Your task to perform on an android device: Add lenovo thinkpad to the cart on target Image 0: 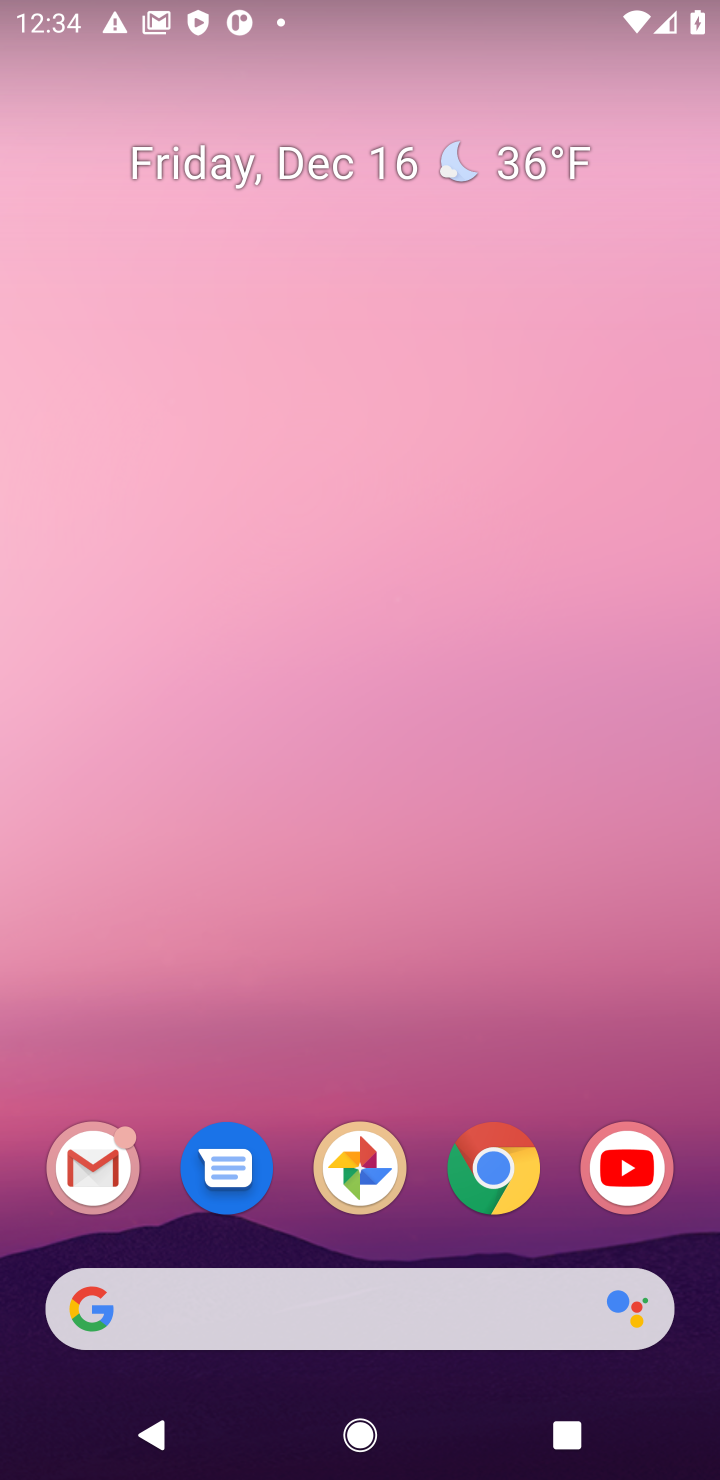
Step 0: click (490, 1177)
Your task to perform on an android device: Add lenovo thinkpad to the cart on target Image 1: 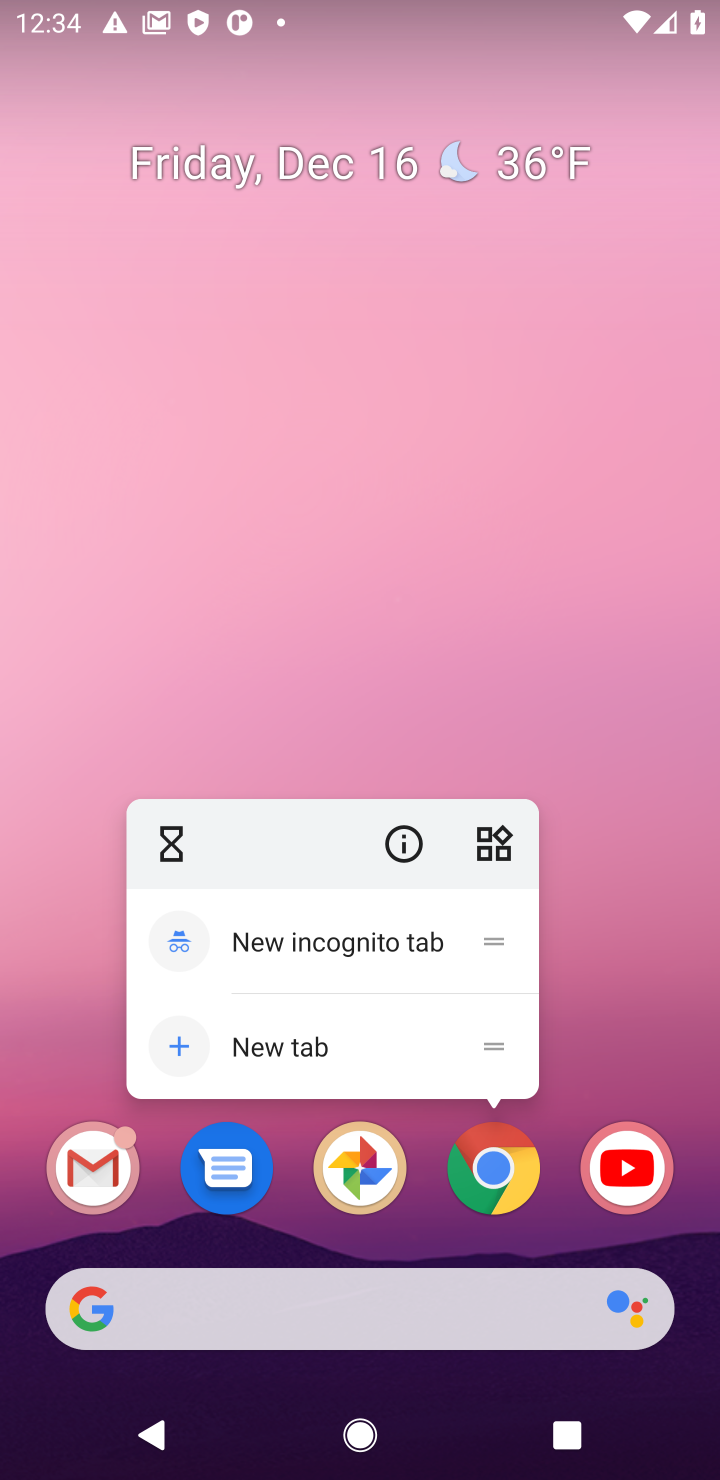
Step 1: click (467, 1194)
Your task to perform on an android device: Add lenovo thinkpad to the cart on target Image 2: 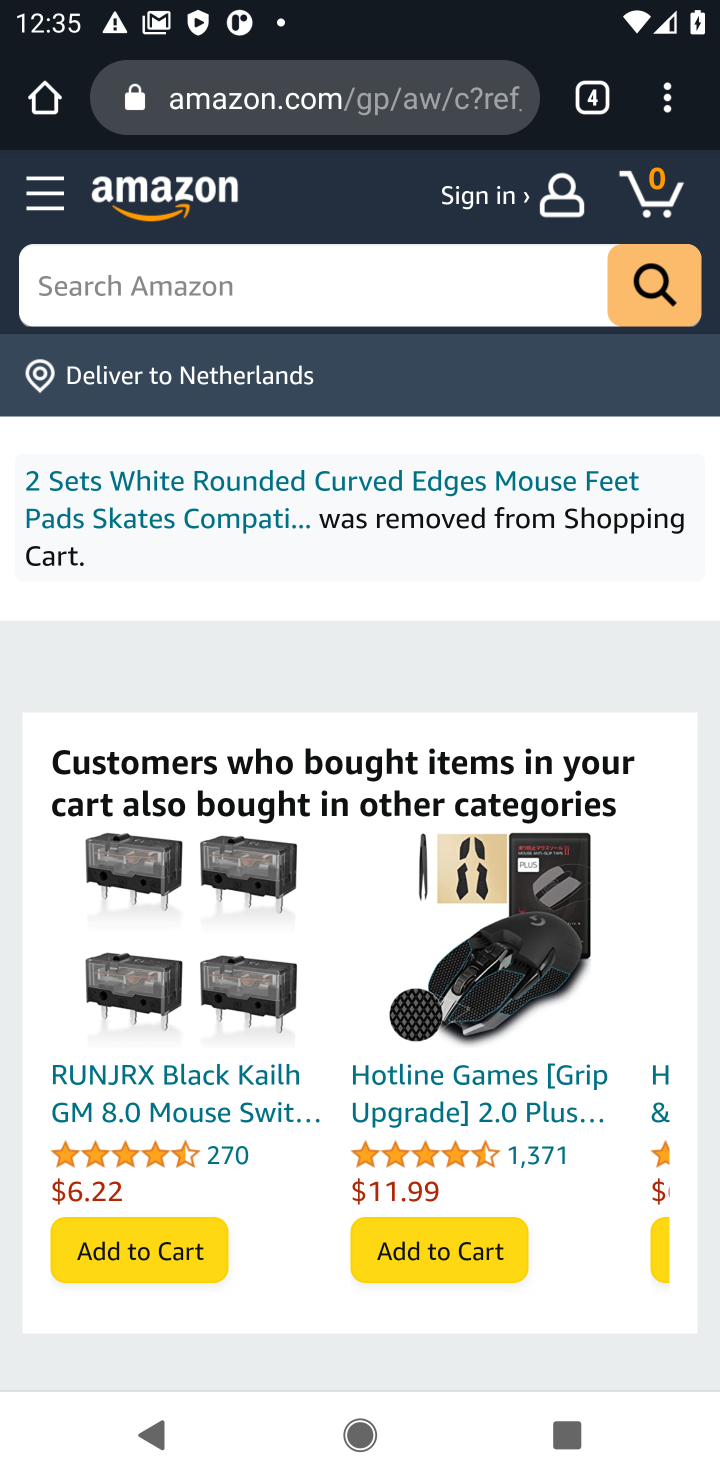
Step 2: click (327, 107)
Your task to perform on an android device: Add lenovo thinkpad to the cart on target Image 3: 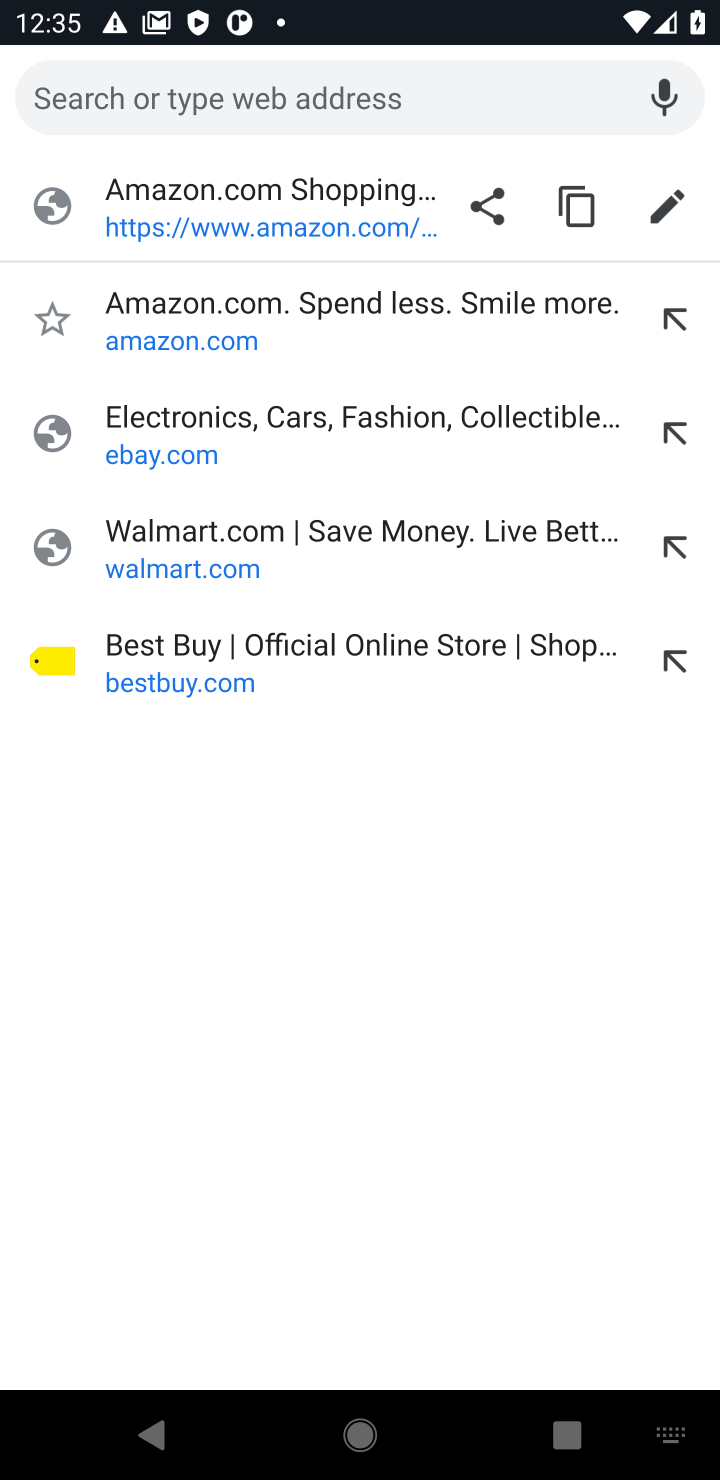
Step 3: type "target"
Your task to perform on an android device: Add lenovo thinkpad to the cart on target Image 4: 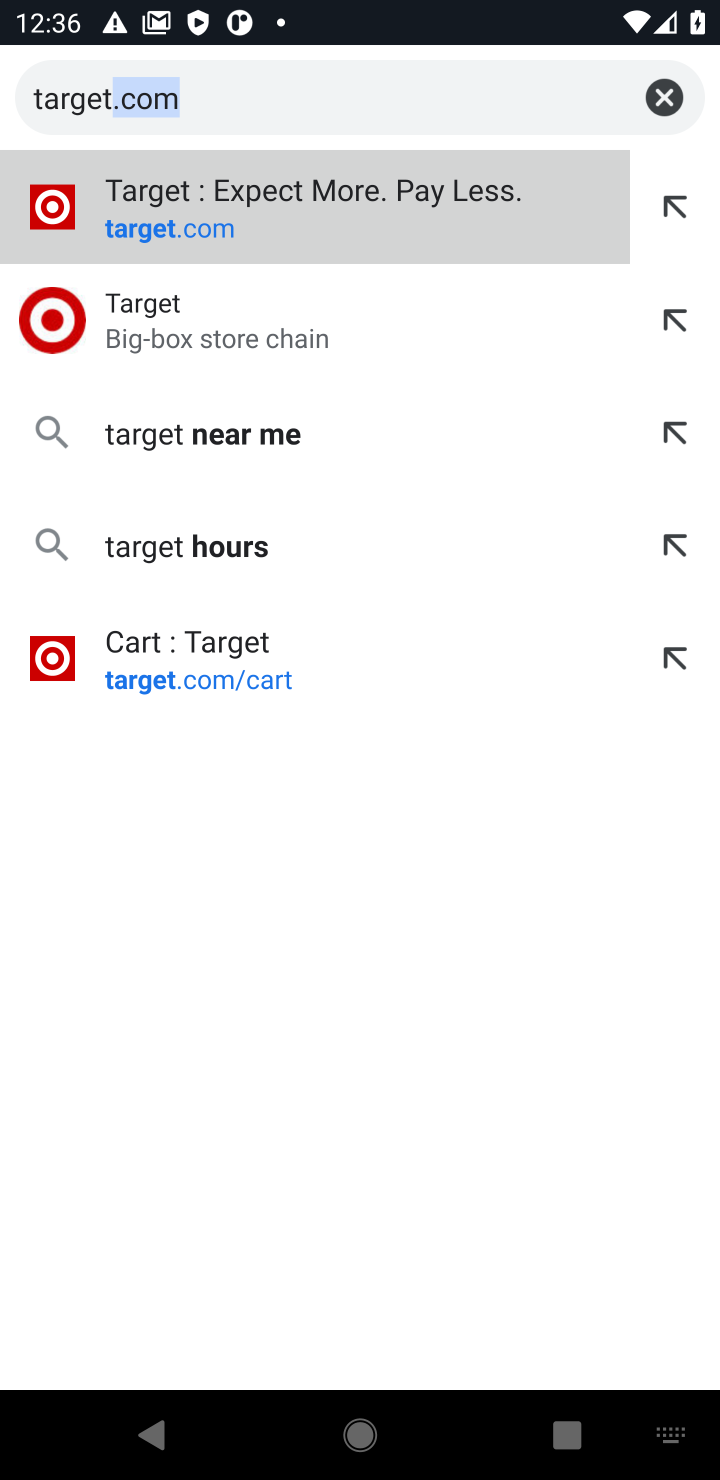
Step 4: click (158, 214)
Your task to perform on an android device: Add lenovo thinkpad to the cart on target Image 5: 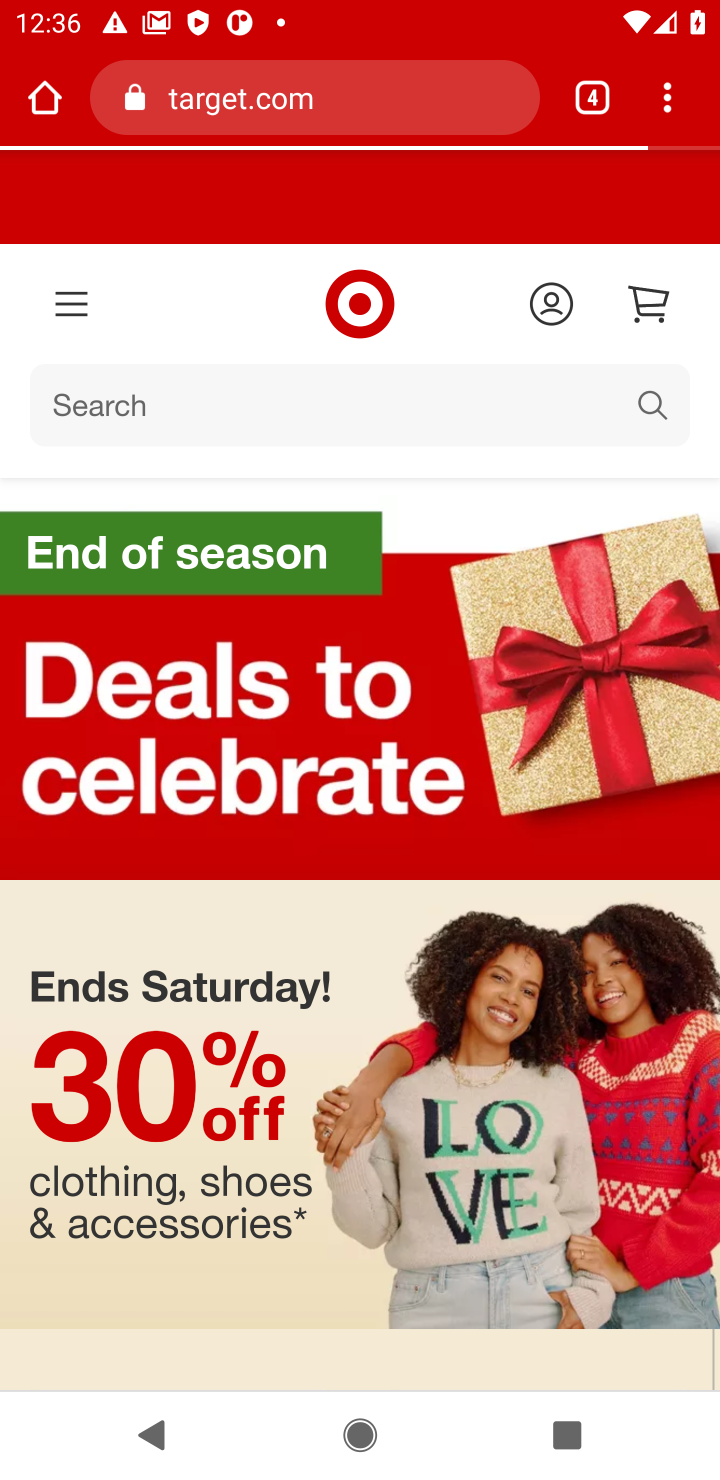
Step 5: click (644, 400)
Your task to perform on an android device: Add lenovo thinkpad to the cart on target Image 6: 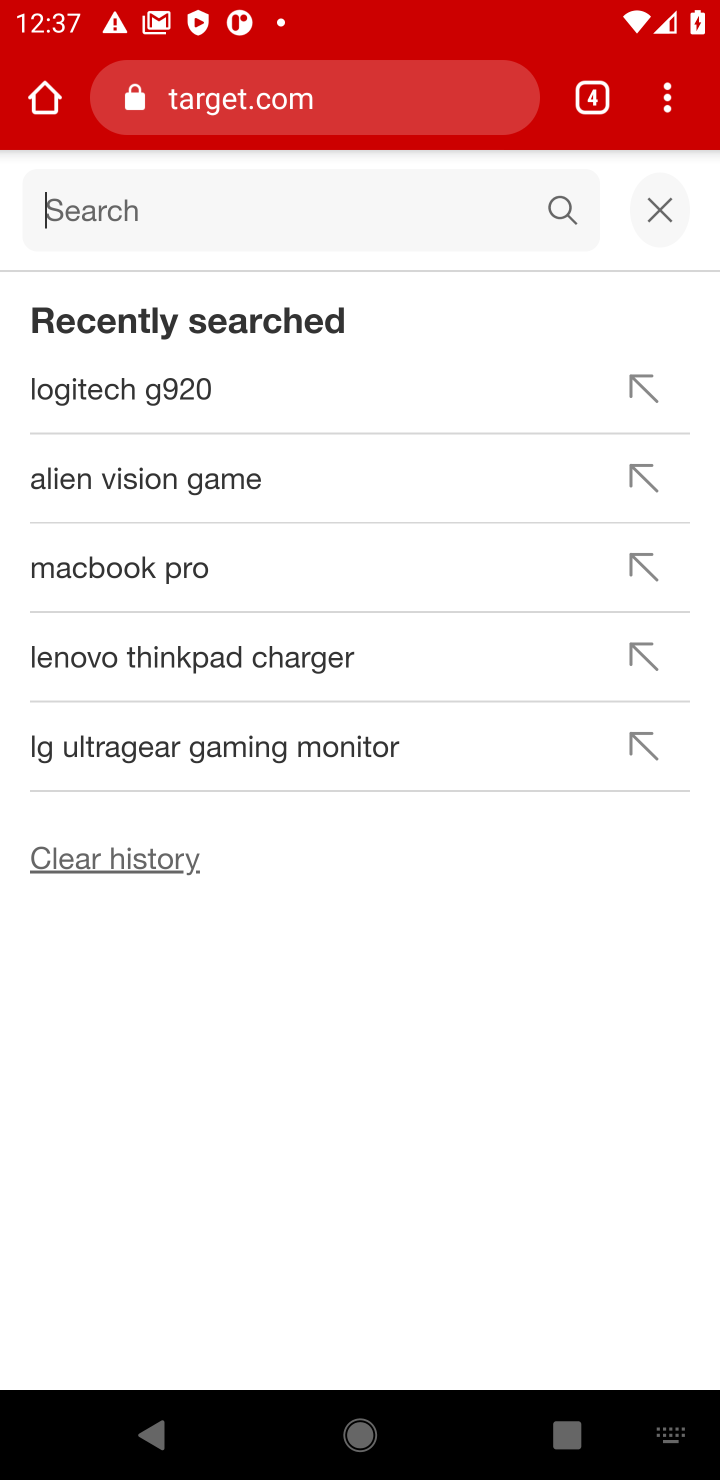
Step 6: type "lenovo thinkpad"
Your task to perform on an android device: Add lenovo thinkpad to the cart on target Image 7: 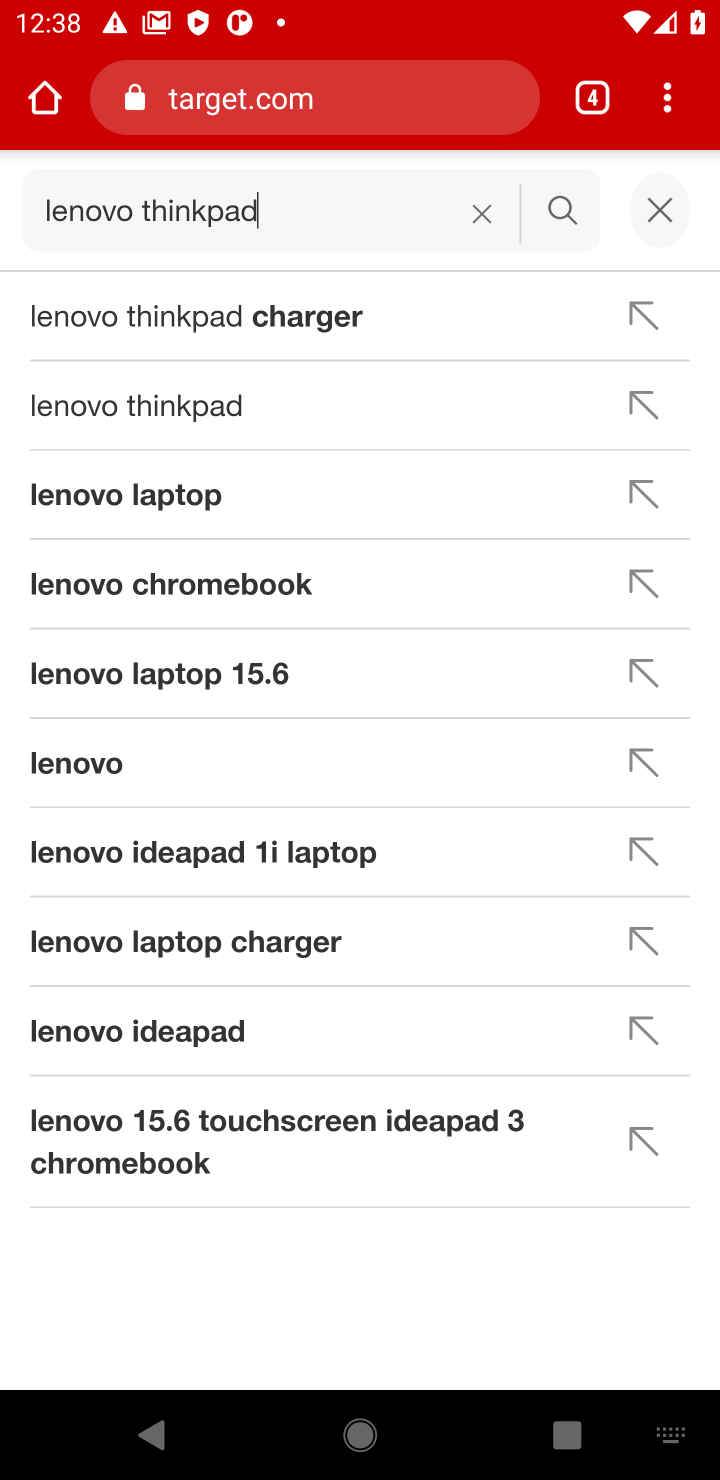
Step 7: click (201, 315)
Your task to perform on an android device: Add lenovo thinkpad to the cart on target Image 8: 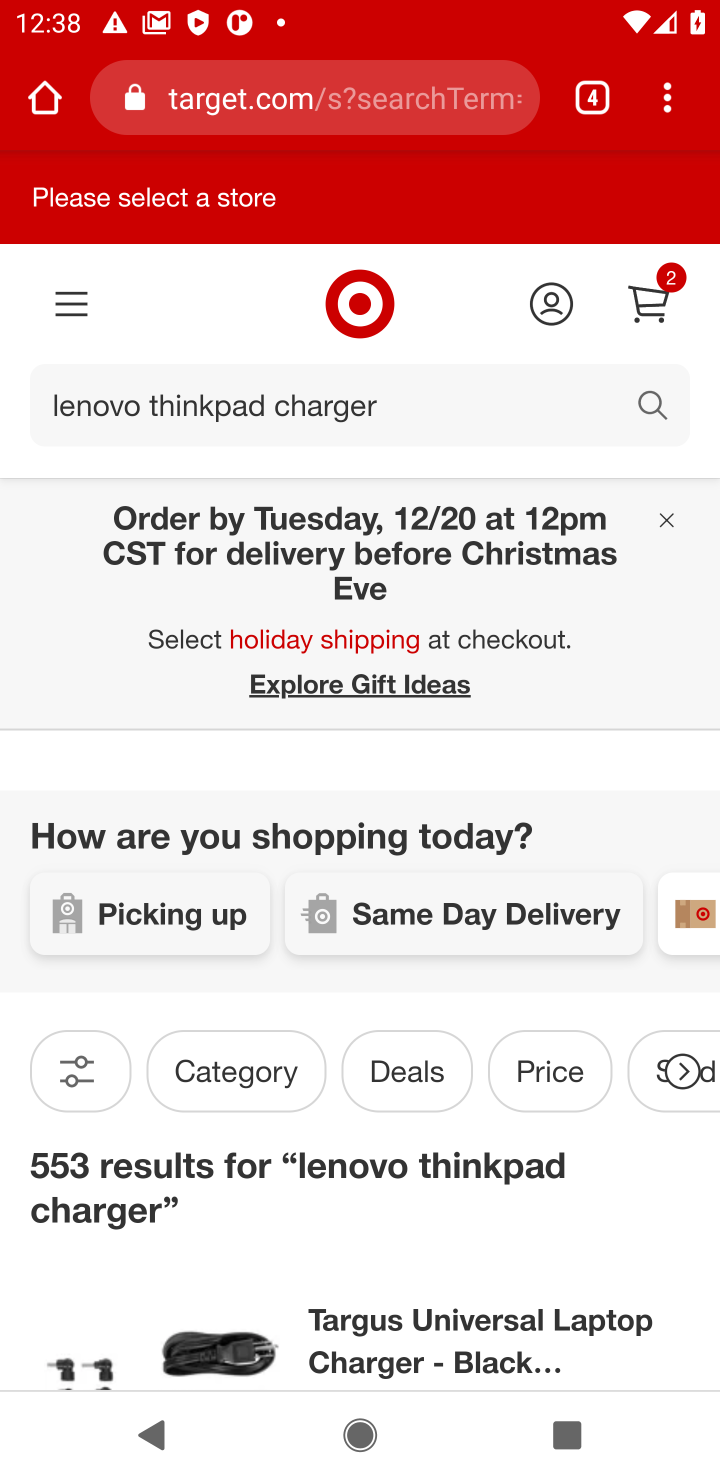
Step 8: click (438, 1325)
Your task to perform on an android device: Add lenovo thinkpad to the cart on target Image 9: 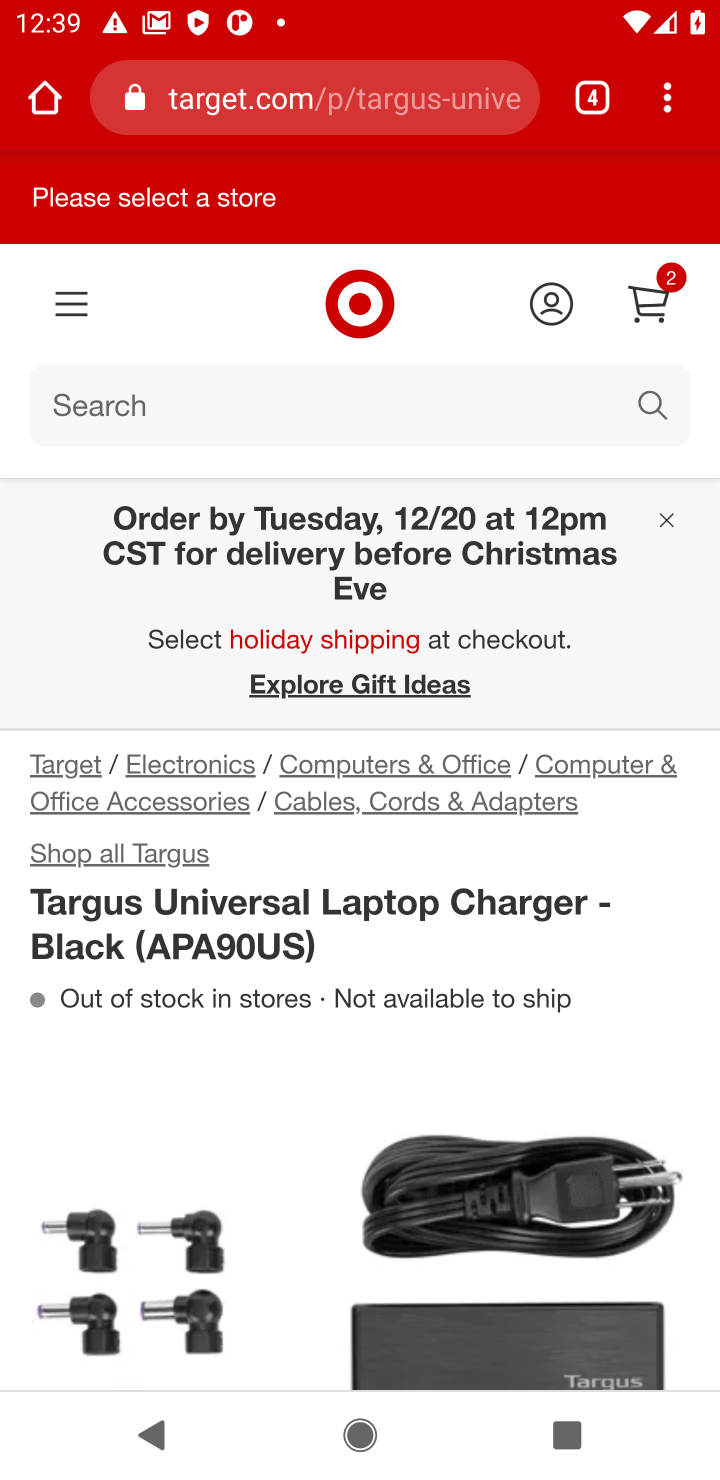
Step 9: drag from (503, 1132) to (474, 439)
Your task to perform on an android device: Add lenovo thinkpad to the cart on target Image 10: 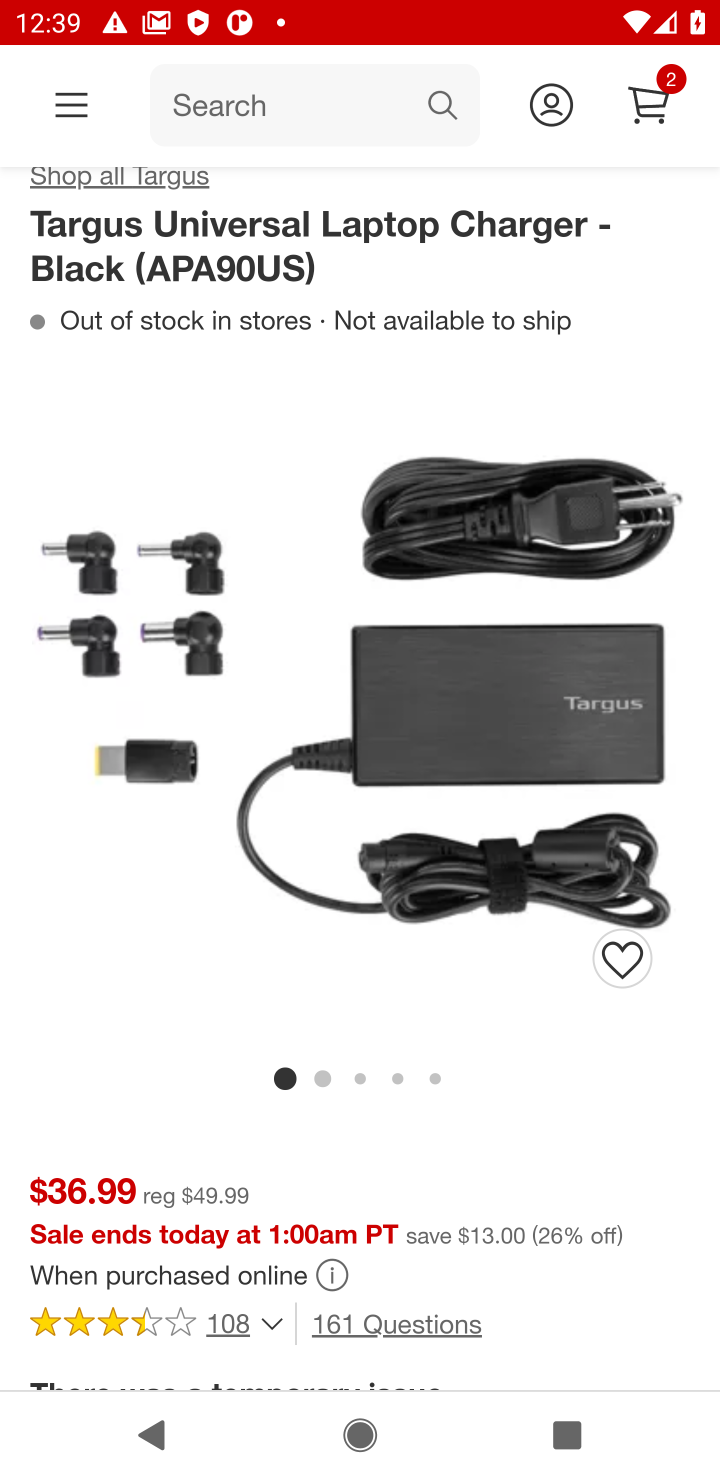
Step 10: drag from (416, 960) to (396, 217)
Your task to perform on an android device: Add lenovo thinkpad to the cart on target Image 11: 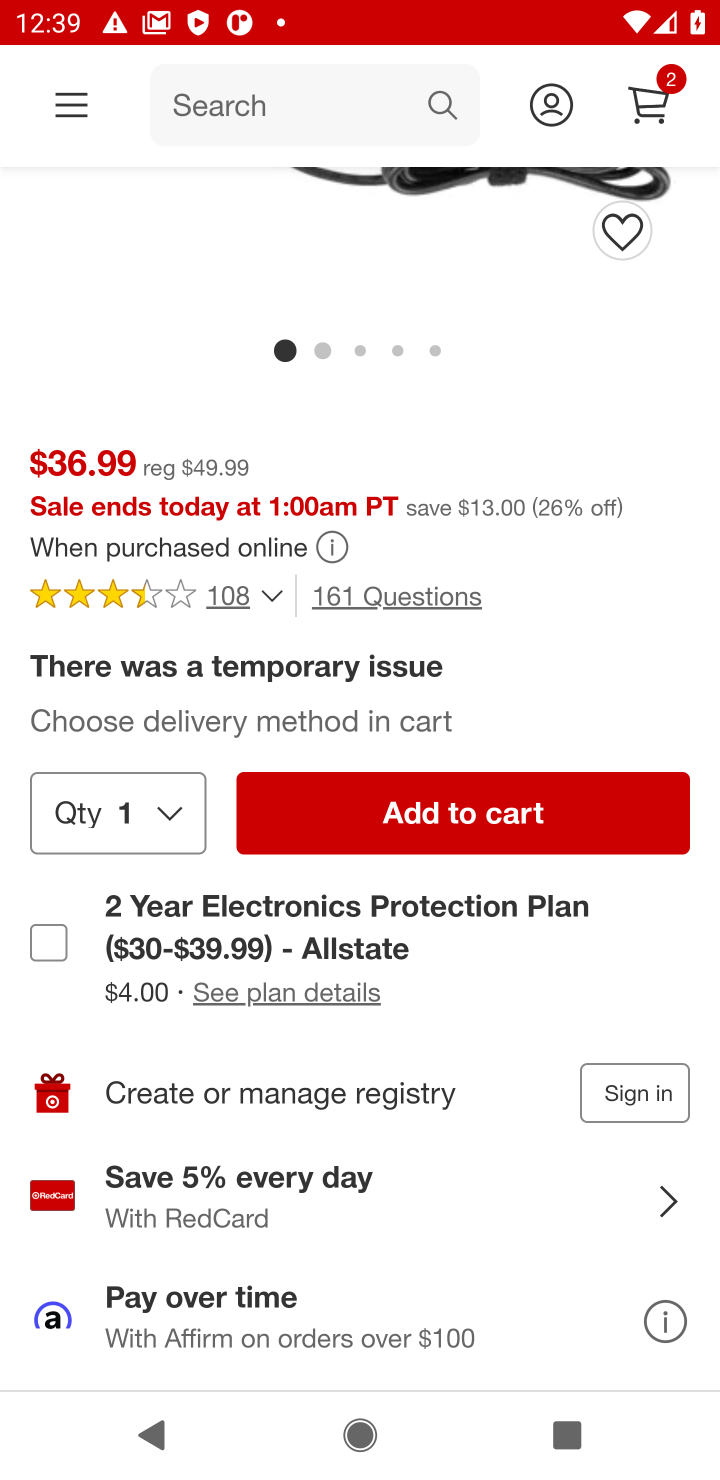
Step 11: click (380, 811)
Your task to perform on an android device: Add lenovo thinkpad to the cart on target Image 12: 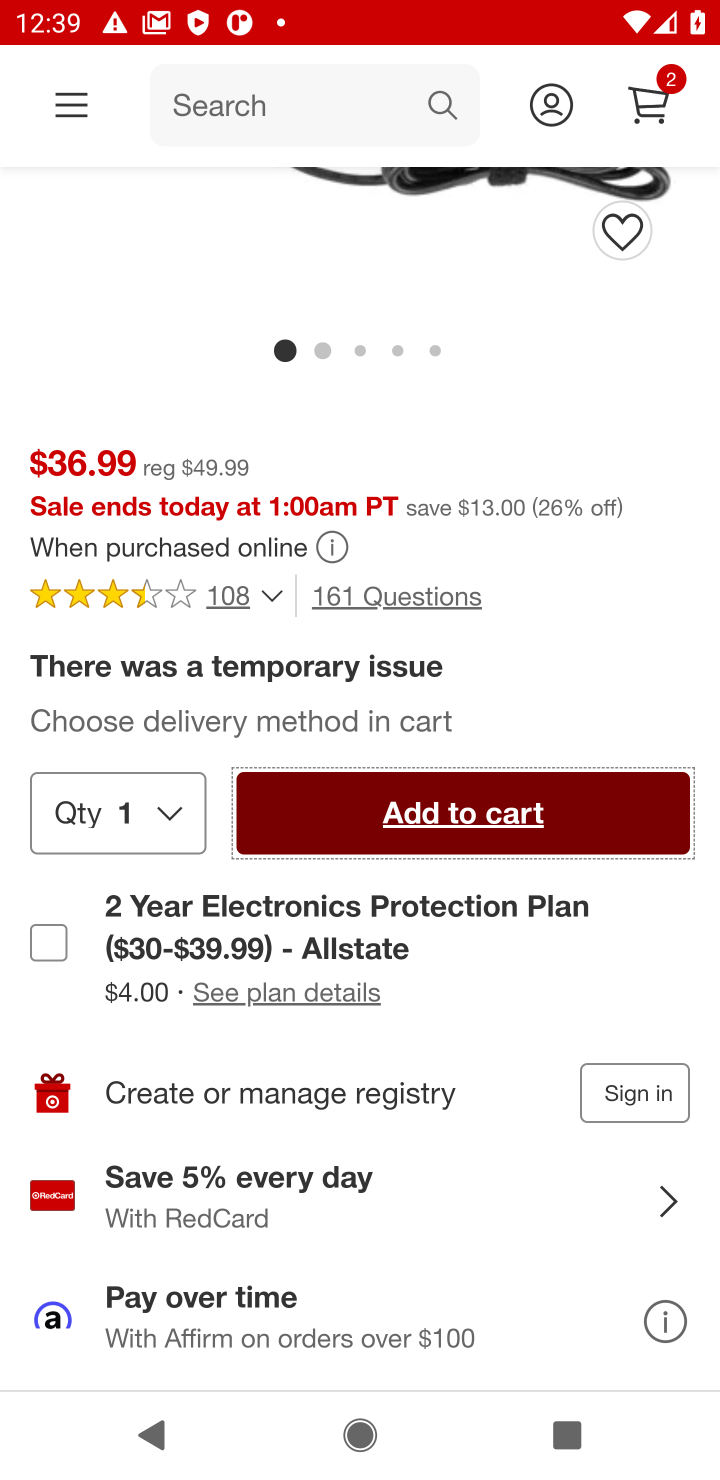
Step 12: task complete